Your task to perform on an android device: Search for sushi restaurants on Maps Image 0: 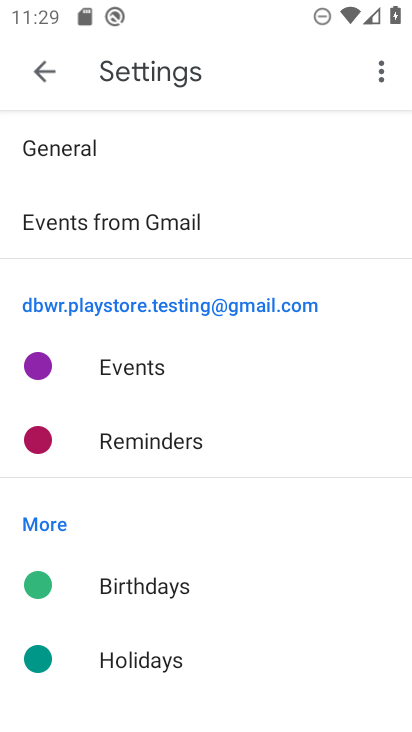
Step 0: press home button
Your task to perform on an android device: Search for sushi restaurants on Maps Image 1: 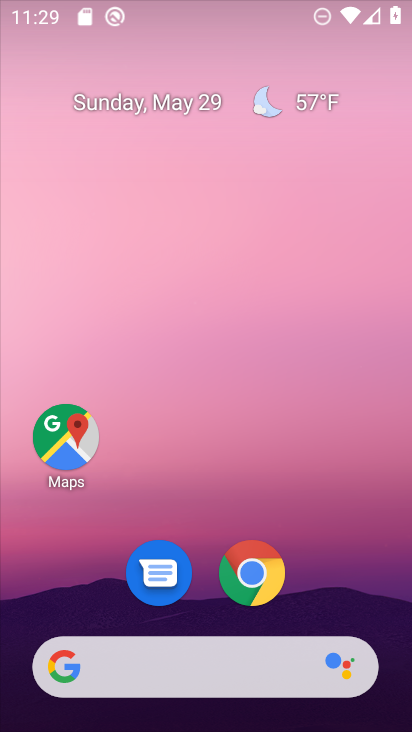
Step 1: drag from (241, 680) to (217, 88)
Your task to perform on an android device: Search for sushi restaurants on Maps Image 2: 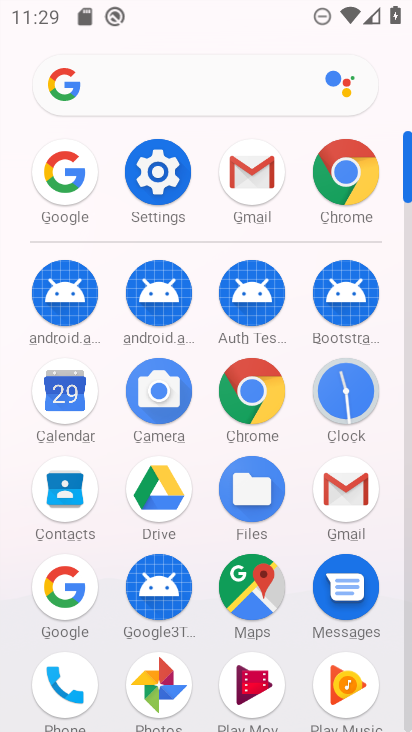
Step 2: click (224, 603)
Your task to perform on an android device: Search for sushi restaurants on Maps Image 3: 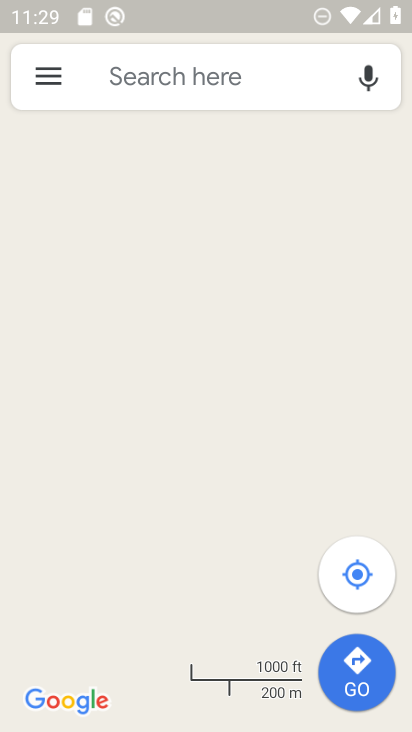
Step 3: click (157, 82)
Your task to perform on an android device: Search for sushi restaurants on Maps Image 4: 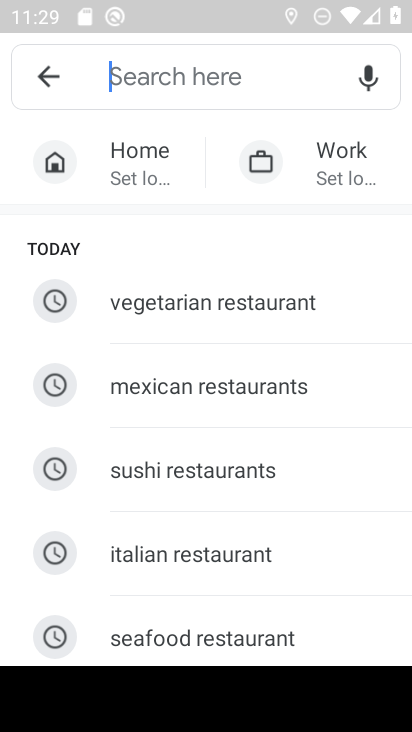
Step 4: click (238, 495)
Your task to perform on an android device: Search for sushi restaurants on Maps Image 5: 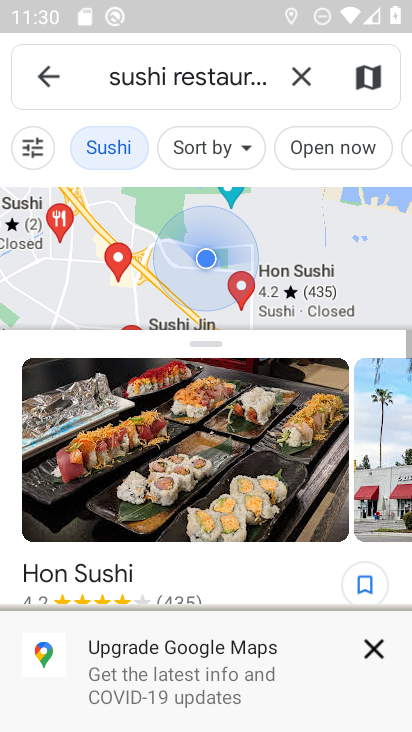
Step 5: task complete